Your task to perform on an android device: turn on translation in the chrome app Image 0: 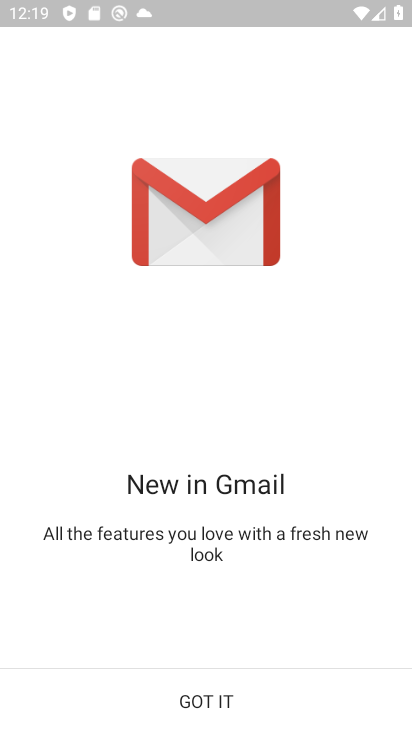
Step 0: press home button
Your task to perform on an android device: turn on translation in the chrome app Image 1: 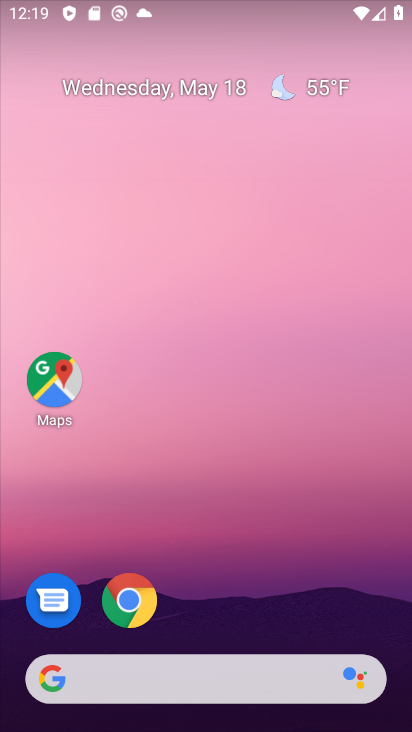
Step 1: click (145, 625)
Your task to perform on an android device: turn on translation in the chrome app Image 2: 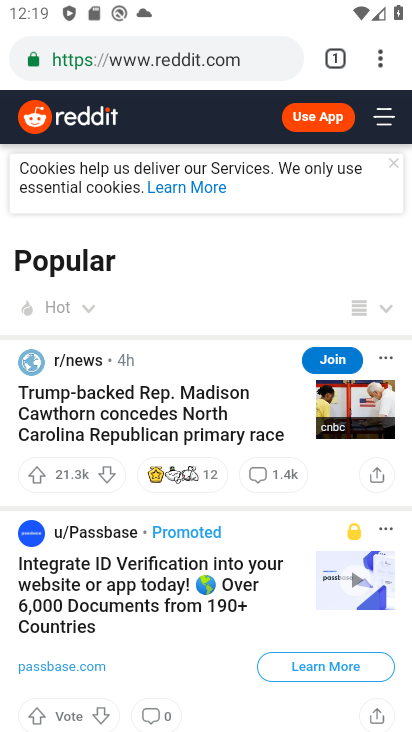
Step 2: drag from (379, 70) to (228, 628)
Your task to perform on an android device: turn on translation in the chrome app Image 3: 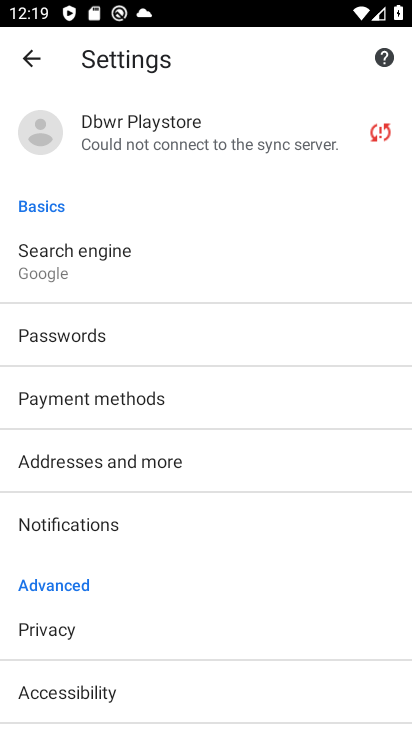
Step 3: drag from (94, 654) to (60, 71)
Your task to perform on an android device: turn on translation in the chrome app Image 4: 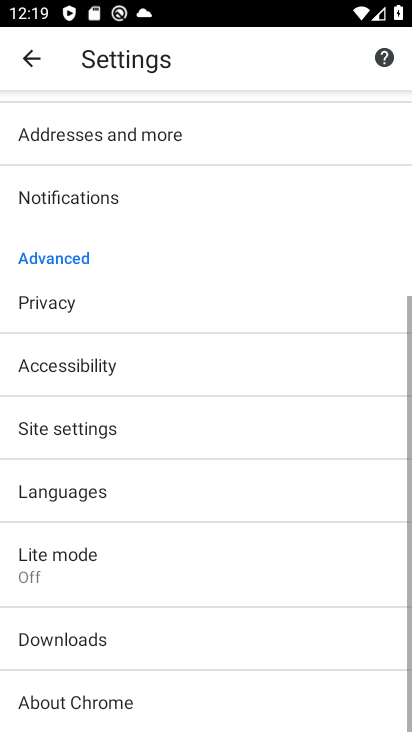
Step 4: click (84, 487)
Your task to perform on an android device: turn on translation in the chrome app Image 5: 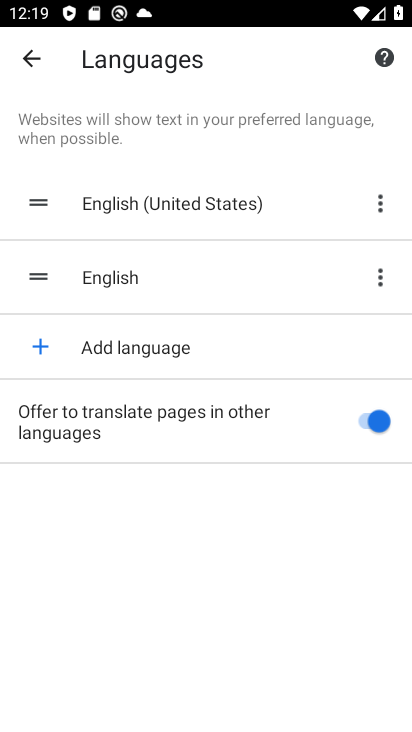
Step 5: task complete